Your task to perform on an android device: open chrome and create a bookmark for the current page Image 0: 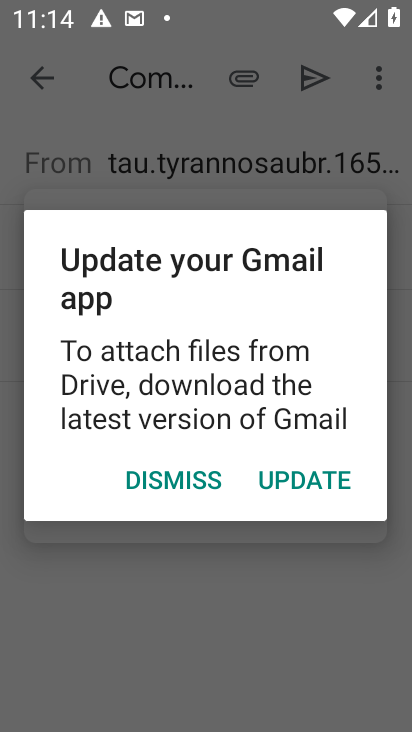
Step 0: press home button
Your task to perform on an android device: open chrome and create a bookmark for the current page Image 1: 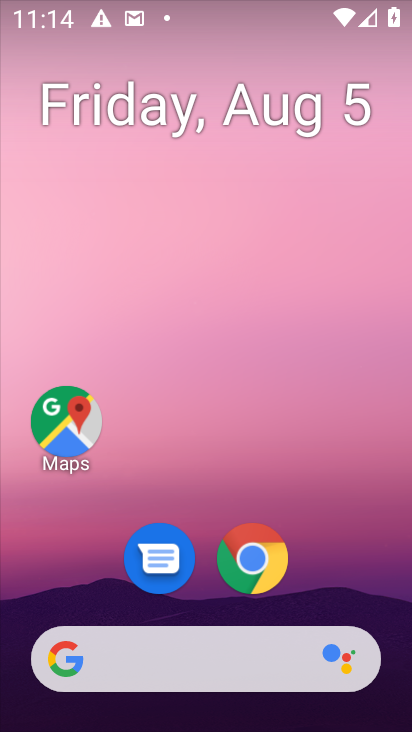
Step 1: drag from (393, 570) to (407, 265)
Your task to perform on an android device: open chrome and create a bookmark for the current page Image 2: 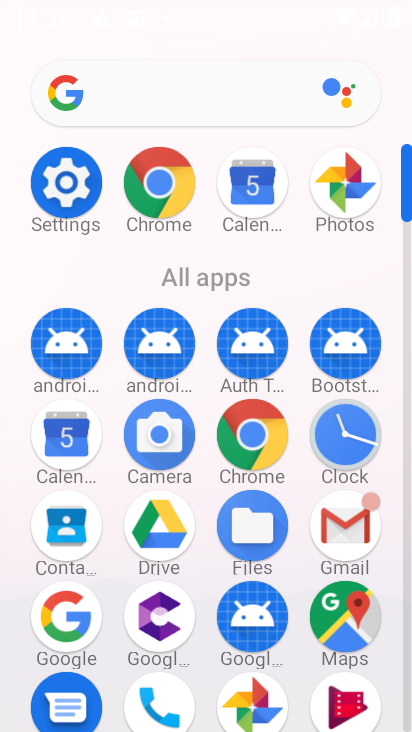
Step 2: click (271, 444)
Your task to perform on an android device: open chrome and create a bookmark for the current page Image 3: 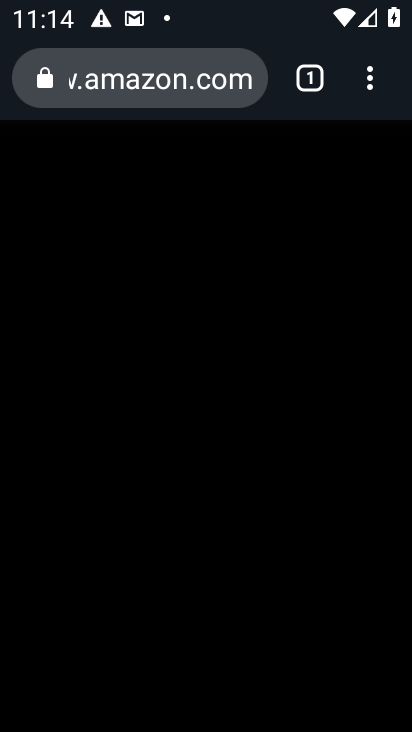
Step 3: click (370, 76)
Your task to perform on an android device: open chrome and create a bookmark for the current page Image 4: 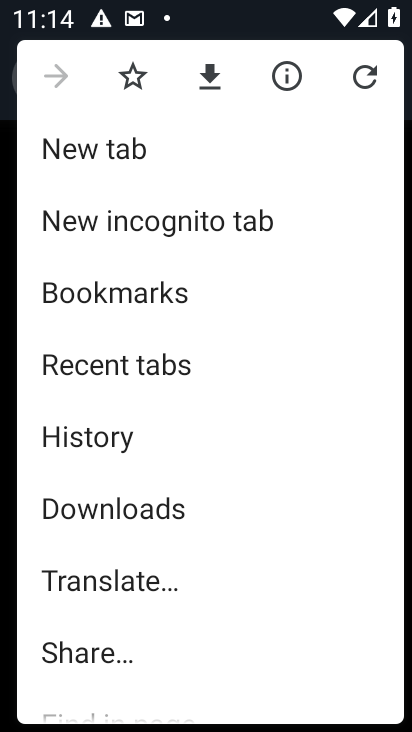
Step 4: click (136, 74)
Your task to perform on an android device: open chrome and create a bookmark for the current page Image 5: 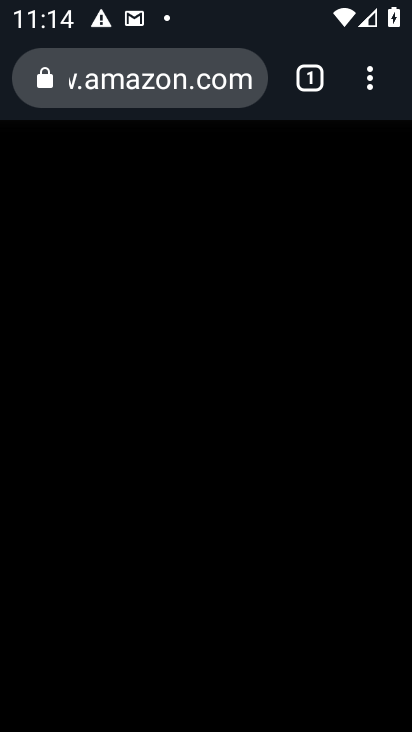
Step 5: task complete